Your task to perform on an android device: turn pop-ups on in chrome Image 0: 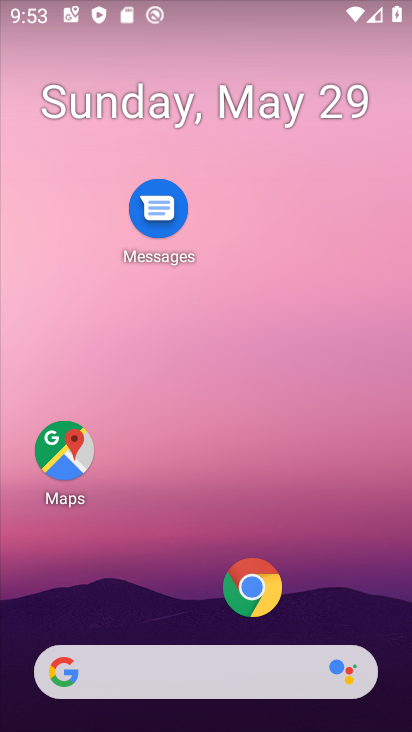
Step 0: click (248, 578)
Your task to perform on an android device: turn pop-ups on in chrome Image 1: 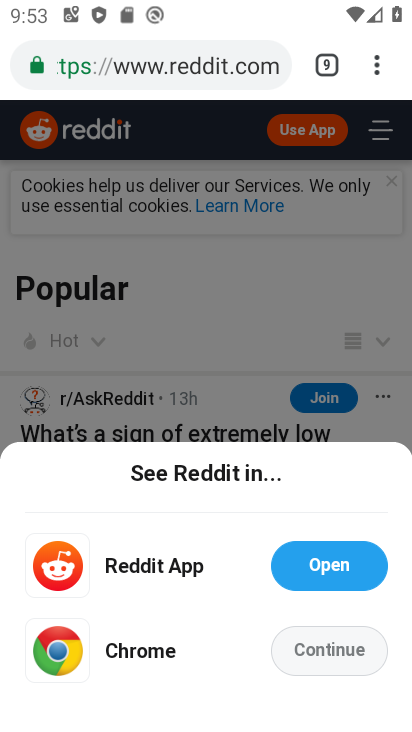
Step 1: drag from (368, 63) to (158, 644)
Your task to perform on an android device: turn pop-ups on in chrome Image 2: 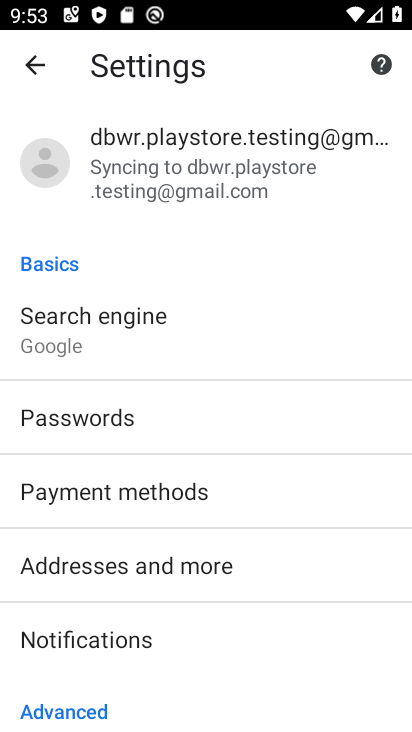
Step 2: drag from (167, 626) to (209, 132)
Your task to perform on an android device: turn pop-ups on in chrome Image 3: 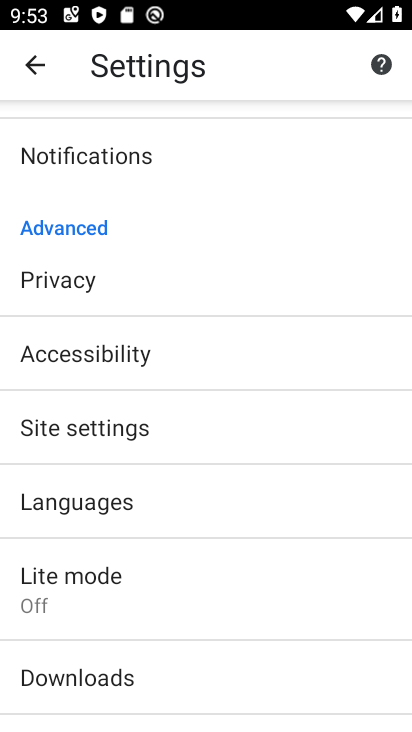
Step 3: click (86, 432)
Your task to perform on an android device: turn pop-ups on in chrome Image 4: 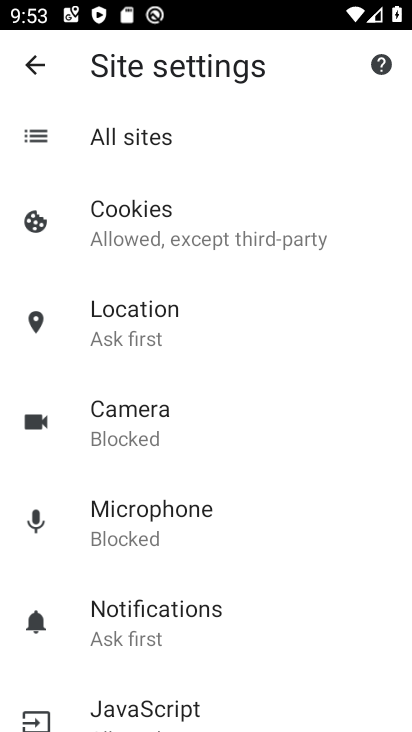
Step 4: drag from (162, 694) to (210, 153)
Your task to perform on an android device: turn pop-ups on in chrome Image 5: 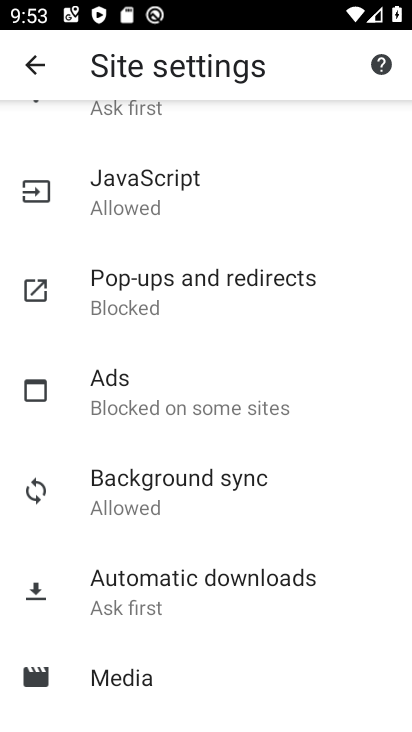
Step 5: click (157, 280)
Your task to perform on an android device: turn pop-ups on in chrome Image 6: 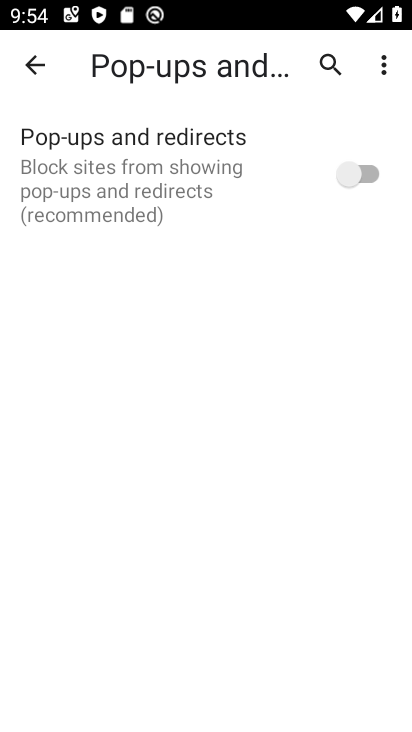
Step 6: click (346, 172)
Your task to perform on an android device: turn pop-ups on in chrome Image 7: 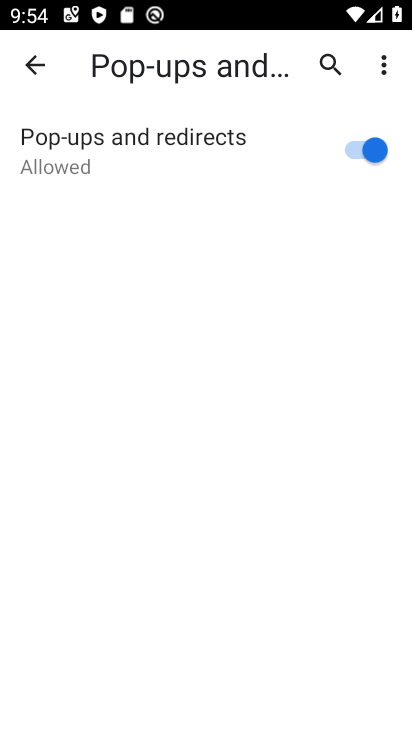
Step 7: task complete